Your task to perform on an android device: Go to eBay Image 0: 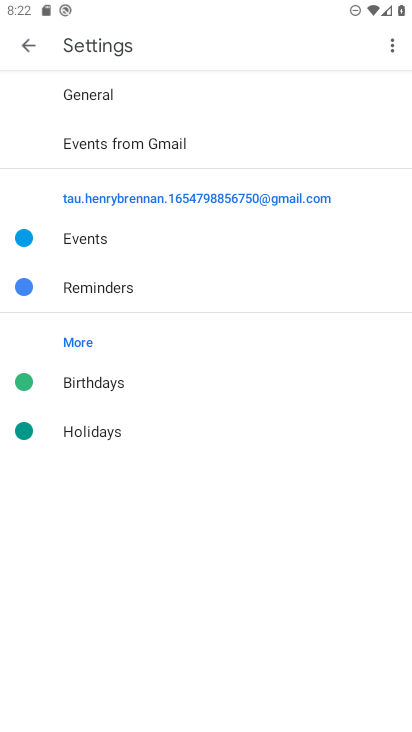
Step 0: press home button
Your task to perform on an android device: Go to eBay Image 1: 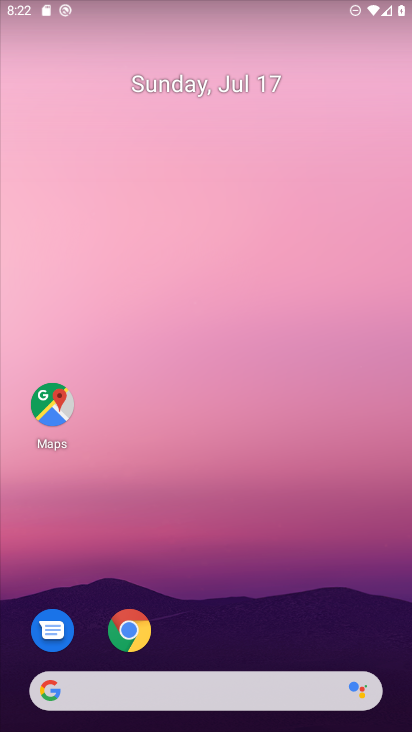
Step 1: drag from (375, 645) to (216, 21)
Your task to perform on an android device: Go to eBay Image 2: 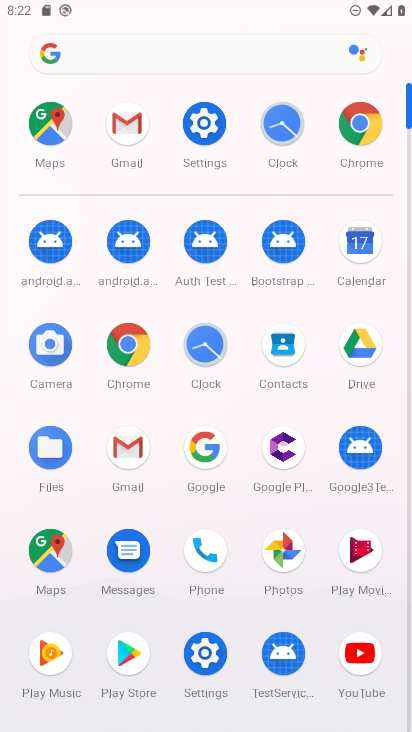
Step 2: click (212, 434)
Your task to perform on an android device: Go to eBay Image 3: 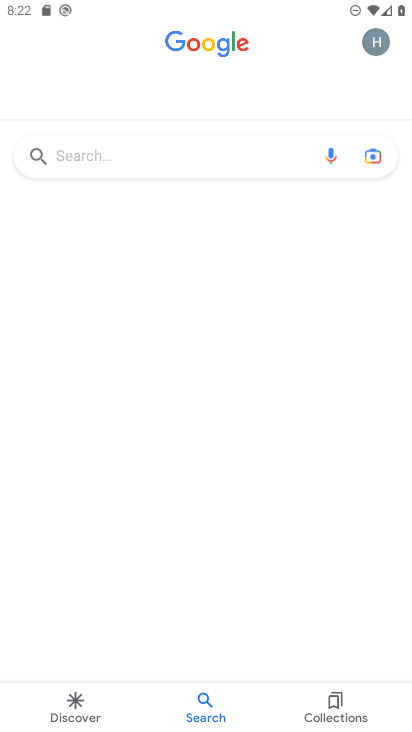
Step 3: click (79, 155)
Your task to perform on an android device: Go to eBay Image 4: 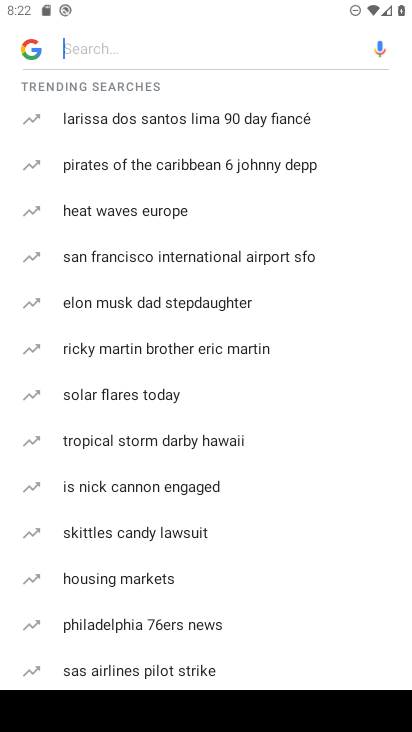
Step 4: type " eBay"
Your task to perform on an android device: Go to eBay Image 5: 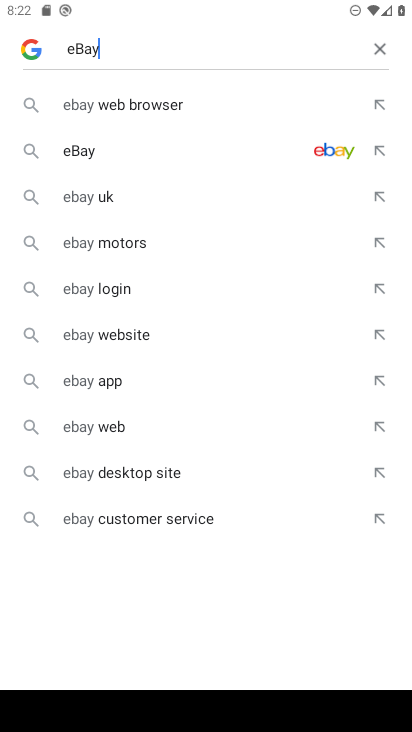
Step 5: click (72, 148)
Your task to perform on an android device: Go to eBay Image 6: 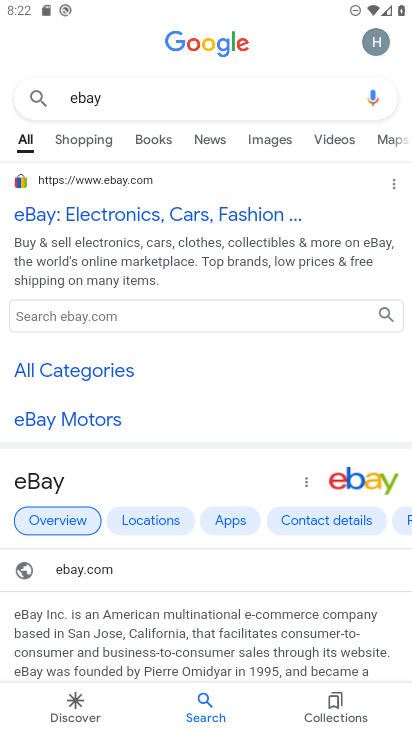
Step 6: task complete